Your task to perform on an android device: Go to battery settings Image 0: 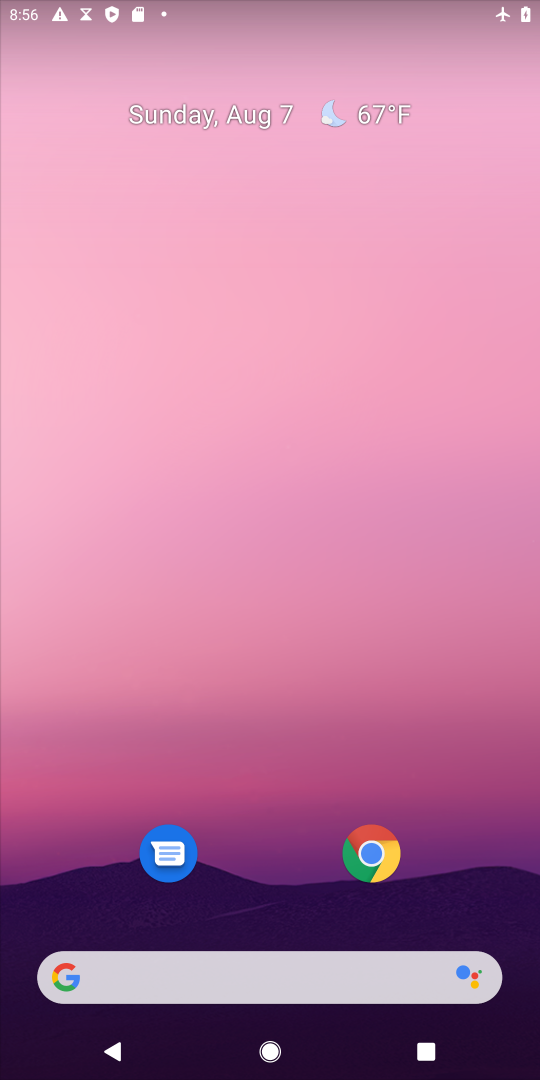
Step 0: drag from (246, 926) to (282, 304)
Your task to perform on an android device: Go to battery settings Image 1: 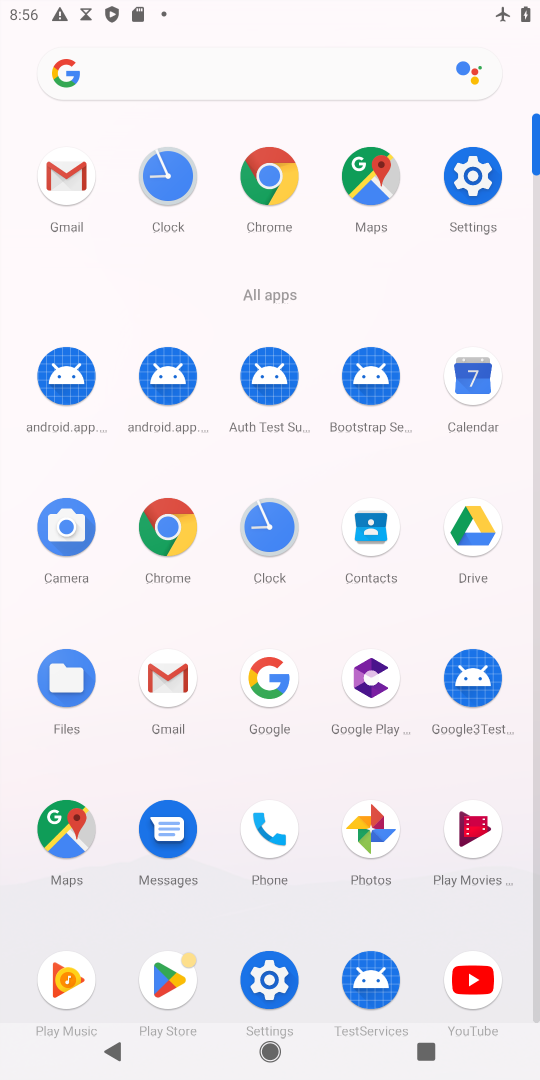
Step 1: click (480, 165)
Your task to perform on an android device: Go to battery settings Image 2: 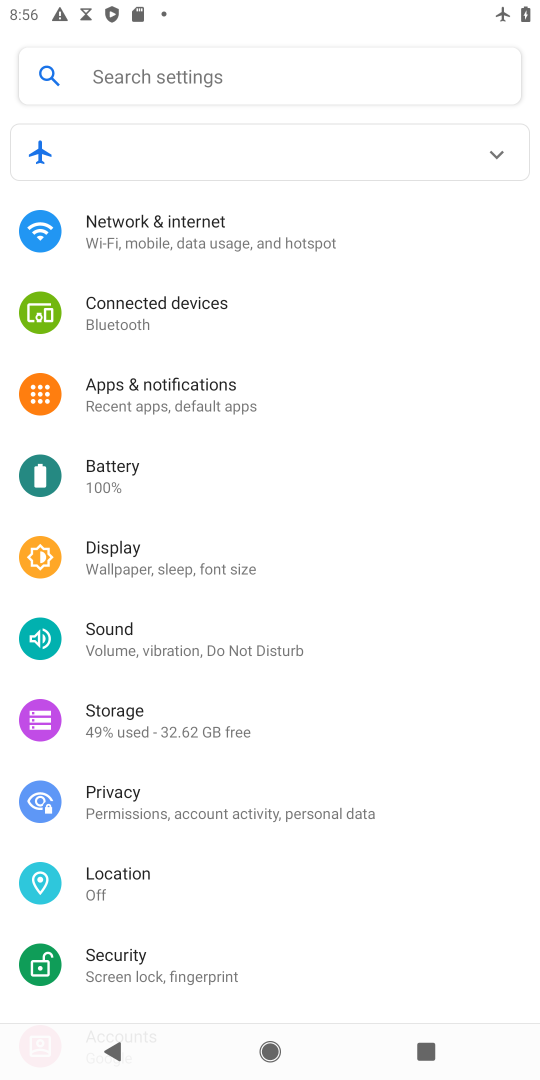
Step 2: click (132, 478)
Your task to perform on an android device: Go to battery settings Image 3: 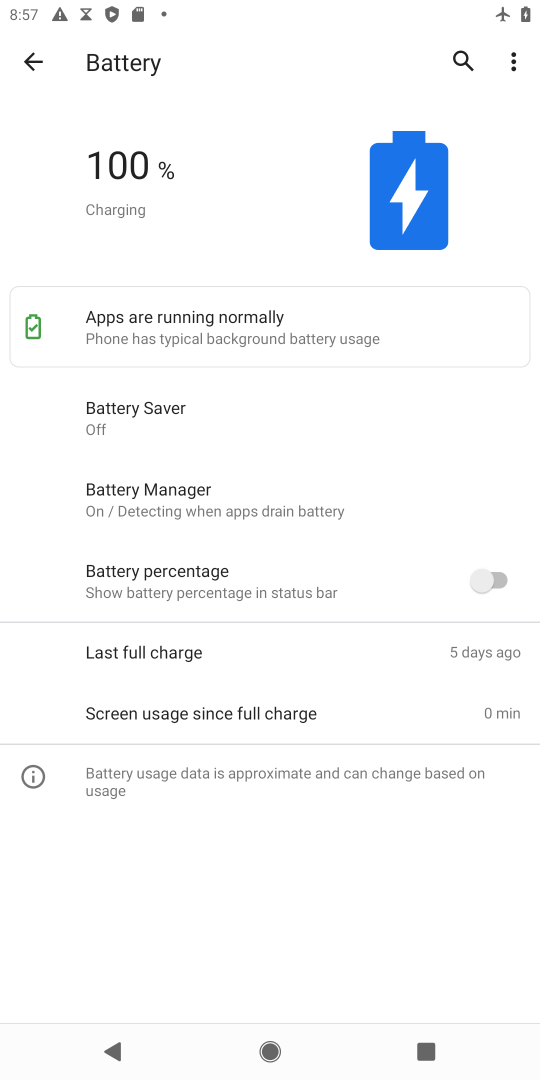
Step 3: task complete